Your task to perform on an android device: Go to Google maps Image 0: 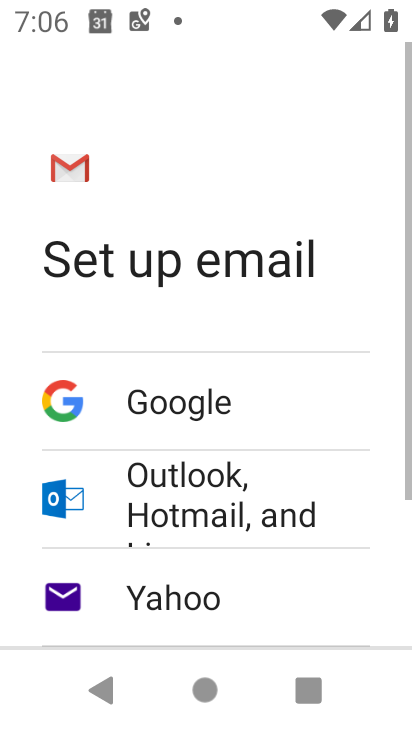
Step 0: press home button
Your task to perform on an android device: Go to Google maps Image 1: 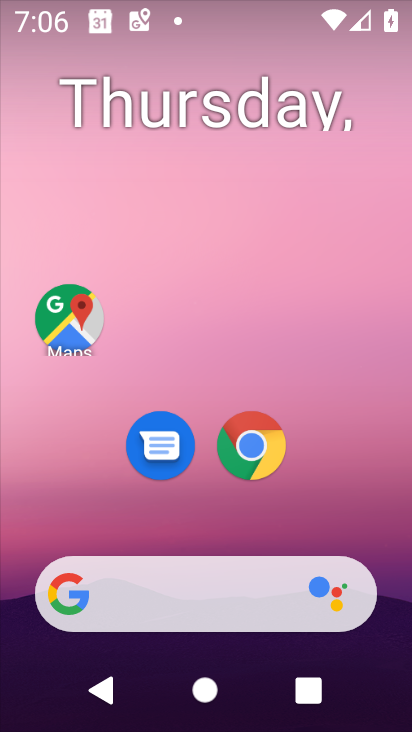
Step 1: drag from (389, 679) to (336, 76)
Your task to perform on an android device: Go to Google maps Image 2: 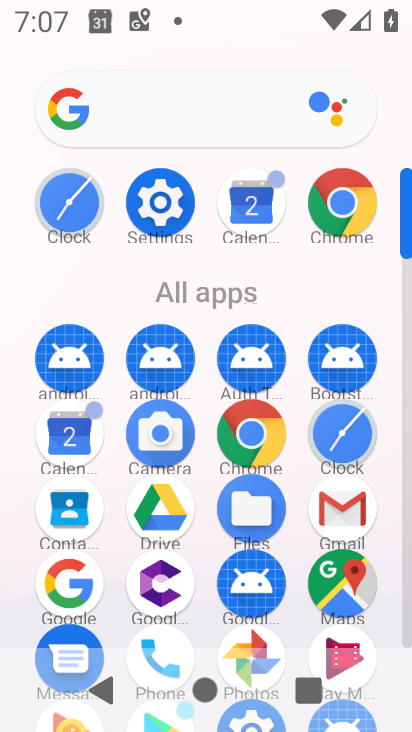
Step 2: click (338, 595)
Your task to perform on an android device: Go to Google maps Image 3: 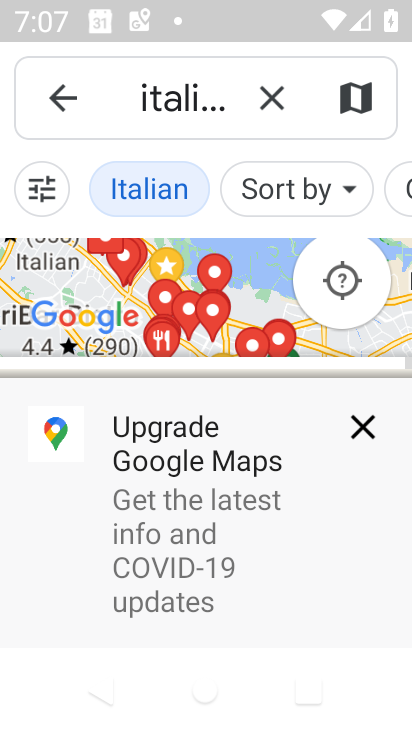
Step 3: click (338, 426)
Your task to perform on an android device: Go to Google maps Image 4: 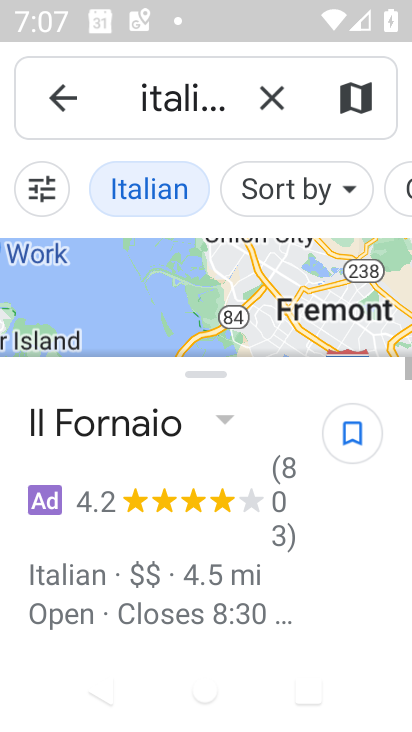
Step 4: click (287, 81)
Your task to perform on an android device: Go to Google maps Image 5: 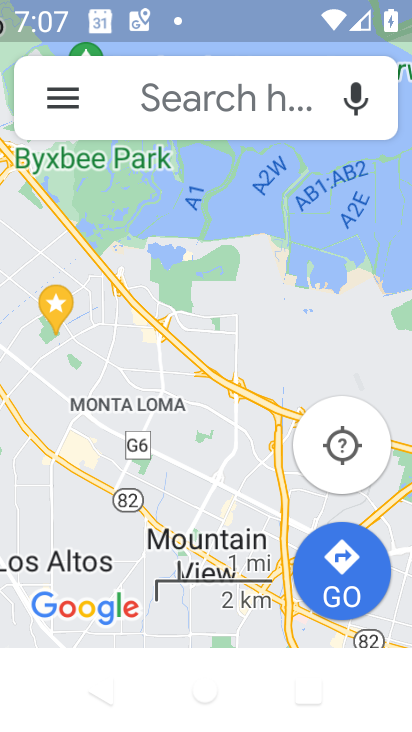
Step 5: task complete